Your task to perform on an android device: turn on sleep mode Image 0: 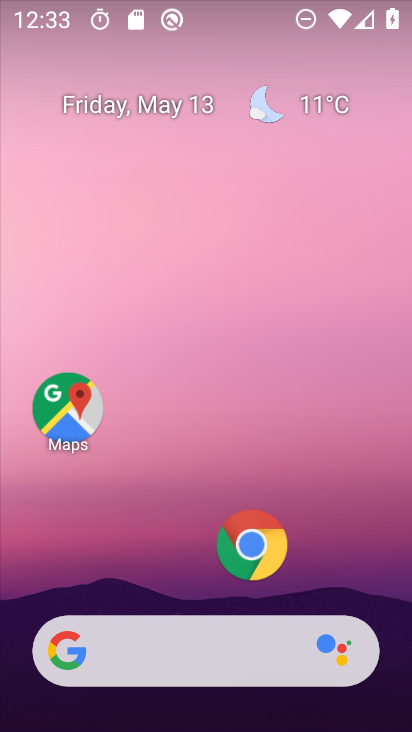
Step 0: drag from (196, 591) to (230, 89)
Your task to perform on an android device: turn on sleep mode Image 1: 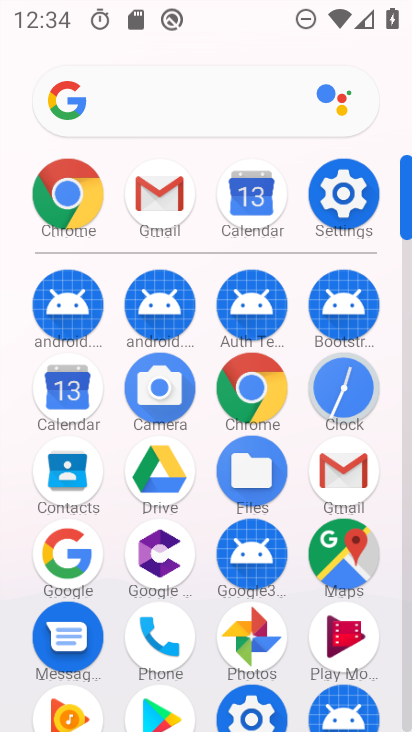
Step 1: click (247, 711)
Your task to perform on an android device: turn on sleep mode Image 2: 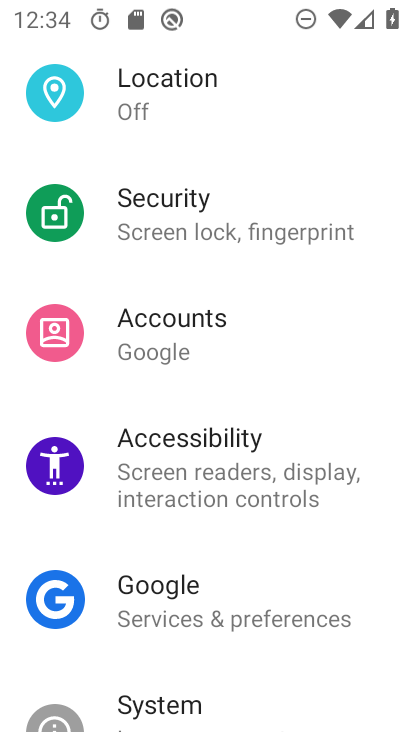
Step 2: drag from (102, 166) to (94, 677)
Your task to perform on an android device: turn on sleep mode Image 3: 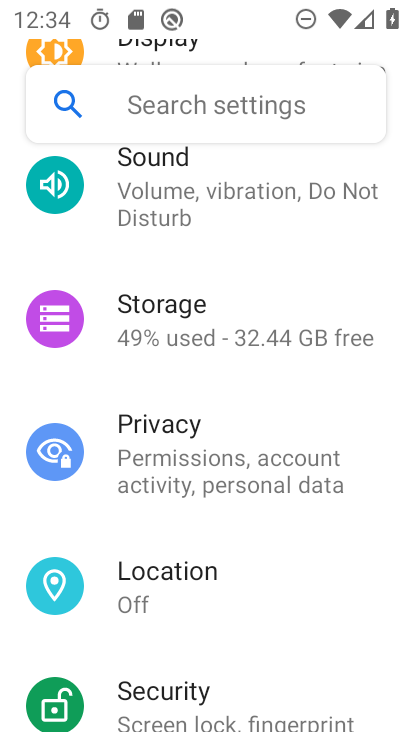
Step 3: drag from (97, 199) to (113, 715)
Your task to perform on an android device: turn on sleep mode Image 4: 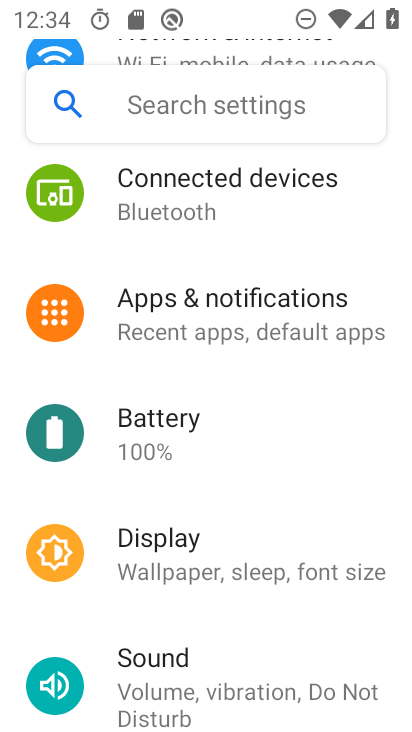
Step 4: click (161, 555)
Your task to perform on an android device: turn on sleep mode Image 5: 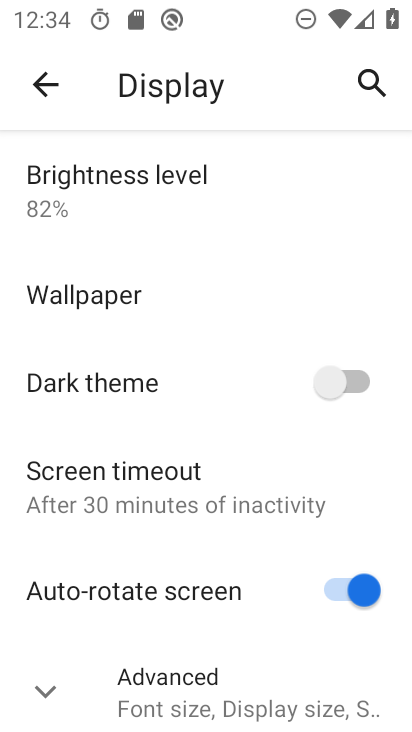
Step 5: task complete